Your task to perform on an android device: delete browsing data in the chrome app Image 0: 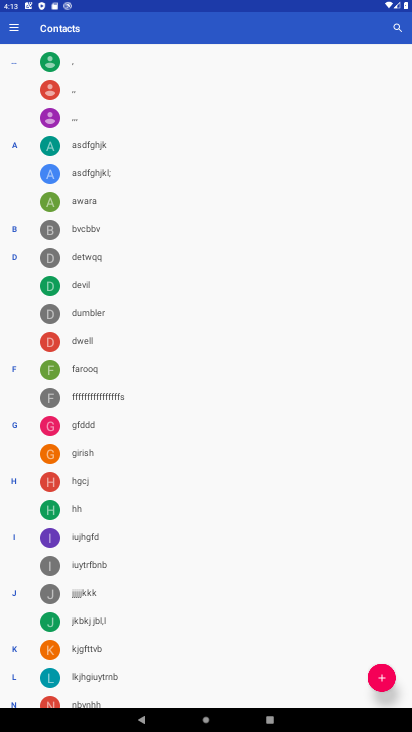
Step 0: press home button
Your task to perform on an android device: delete browsing data in the chrome app Image 1: 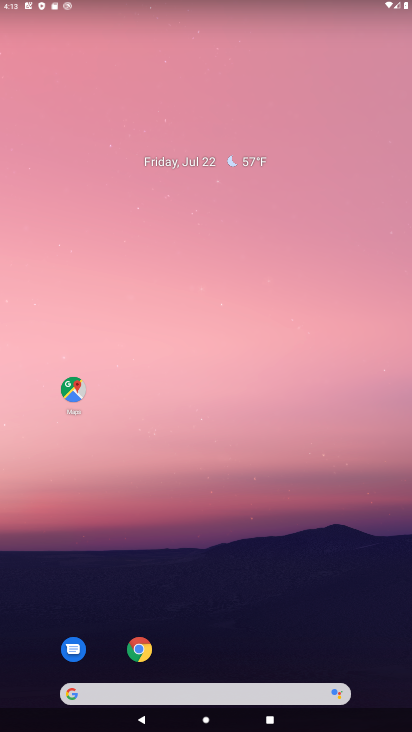
Step 1: click (142, 654)
Your task to perform on an android device: delete browsing data in the chrome app Image 2: 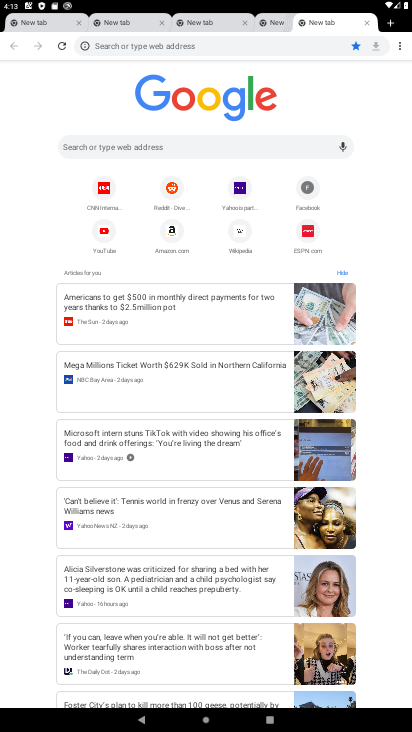
Step 2: click (400, 47)
Your task to perform on an android device: delete browsing data in the chrome app Image 3: 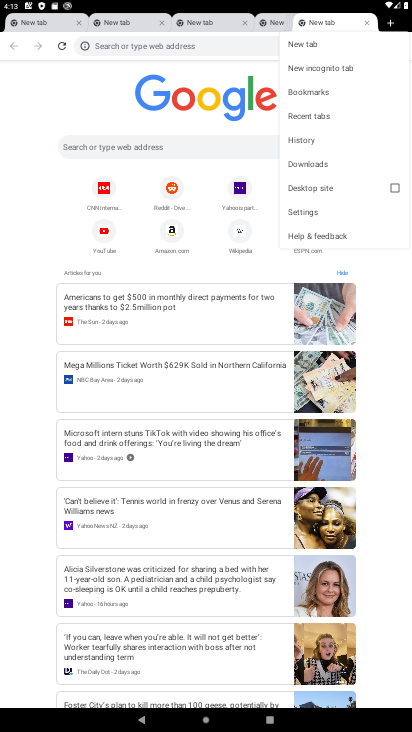
Step 3: click (303, 96)
Your task to perform on an android device: delete browsing data in the chrome app Image 4: 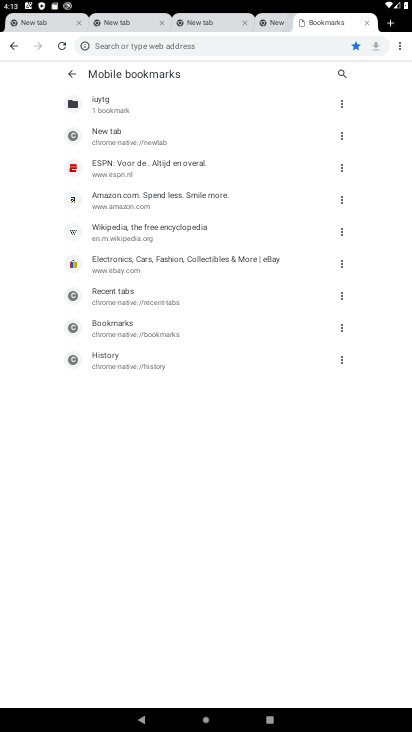
Step 4: click (11, 47)
Your task to perform on an android device: delete browsing data in the chrome app Image 5: 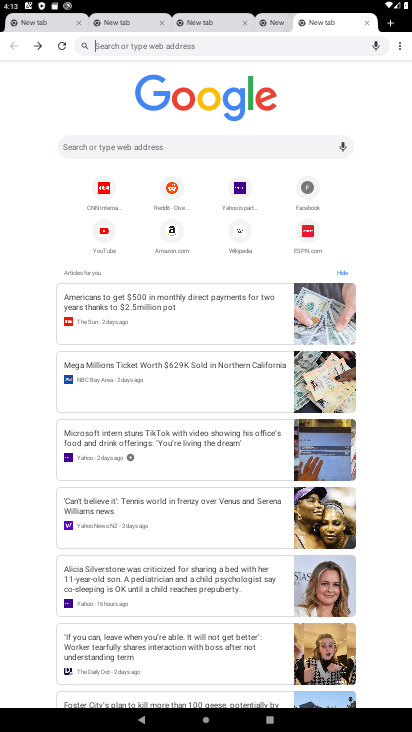
Step 5: click (397, 43)
Your task to perform on an android device: delete browsing data in the chrome app Image 6: 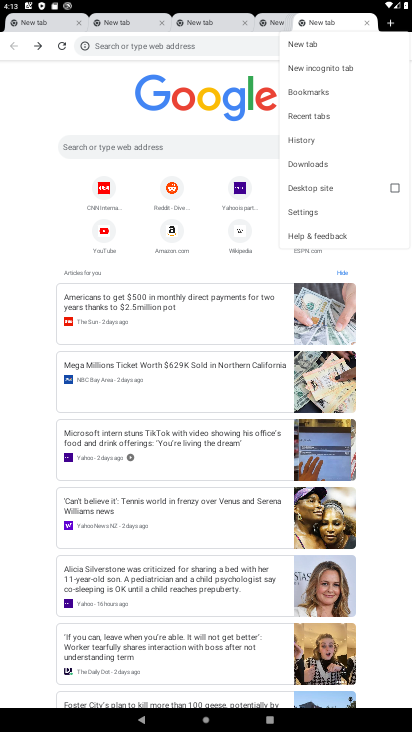
Step 6: click (305, 140)
Your task to perform on an android device: delete browsing data in the chrome app Image 7: 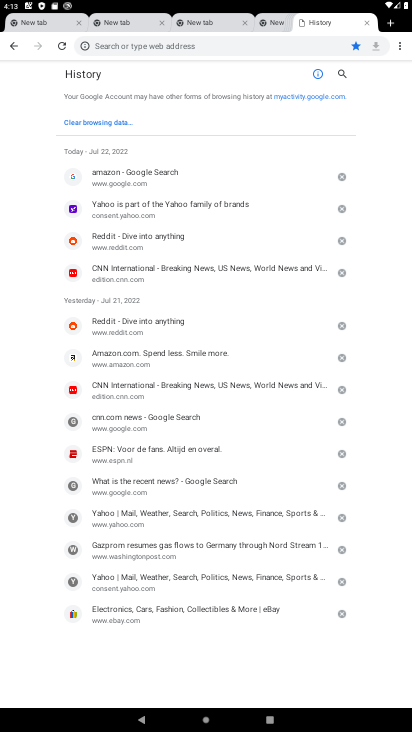
Step 7: click (106, 118)
Your task to perform on an android device: delete browsing data in the chrome app Image 8: 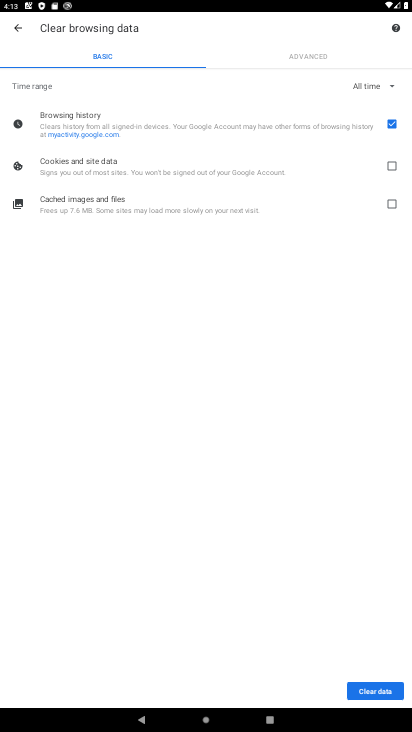
Step 8: click (372, 690)
Your task to perform on an android device: delete browsing data in the chrome app Image 9: 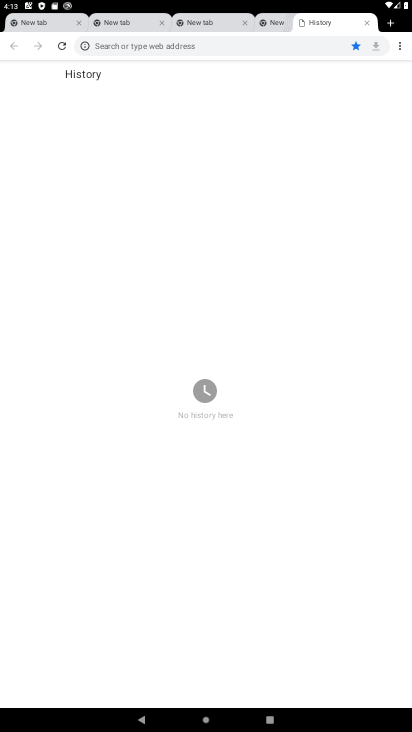
Step 9: task complete